Your task to perform on an android device: Open location settings Image 0: 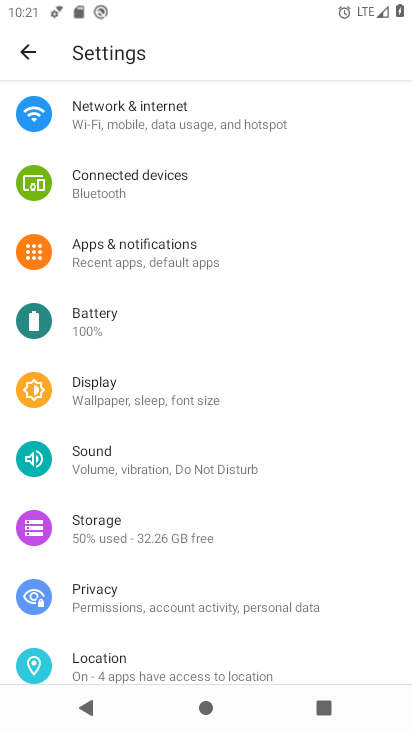
Step 0: click (187, 661)
Your task to perform on an android device: Open location settings Image 1: 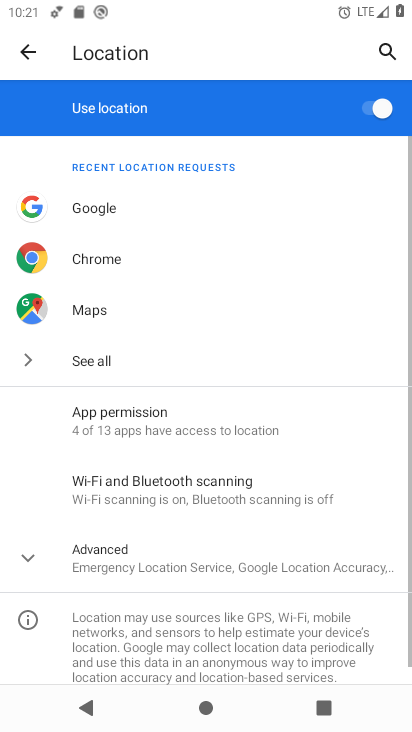
Step 1: task complete